Your task to perform on an android device: allow notifications from all sites in the chrome app Image 0: 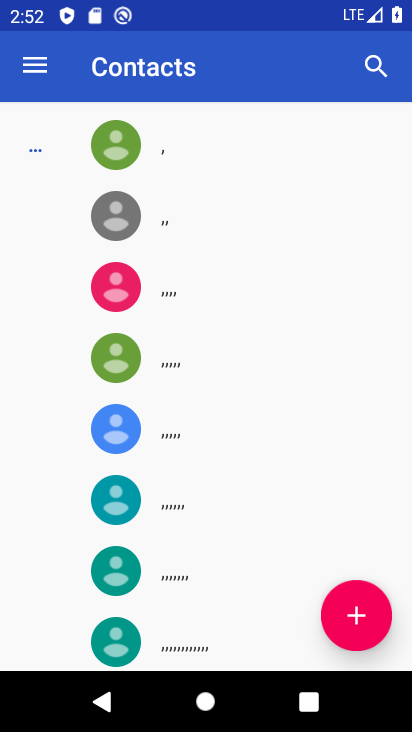
Step 0: press home button
Your task to perform on an android device: allow notifications from all sites in the chrome app Image 1: 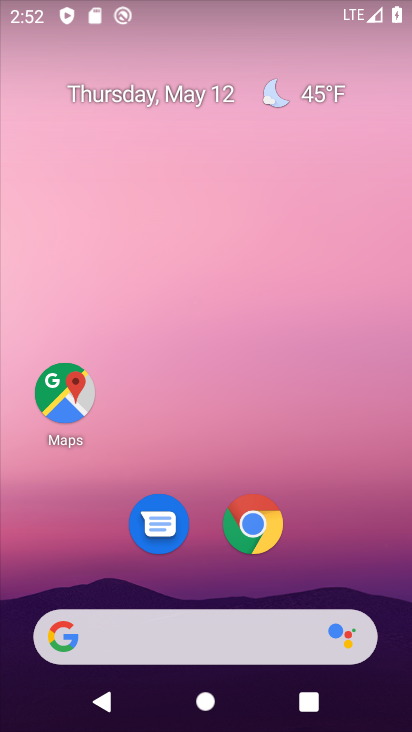
Step 1: click (266, 519)
Your task to perform on an android device: allow notifications from all sites in the chrome app Image 2: 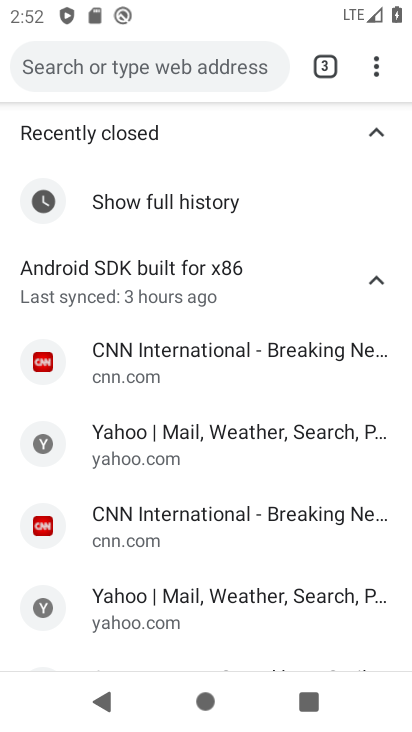
Step 2: click (371, 64)
Your task to perform on an android device: allow notifications from all sites in the chrome app Image 3: 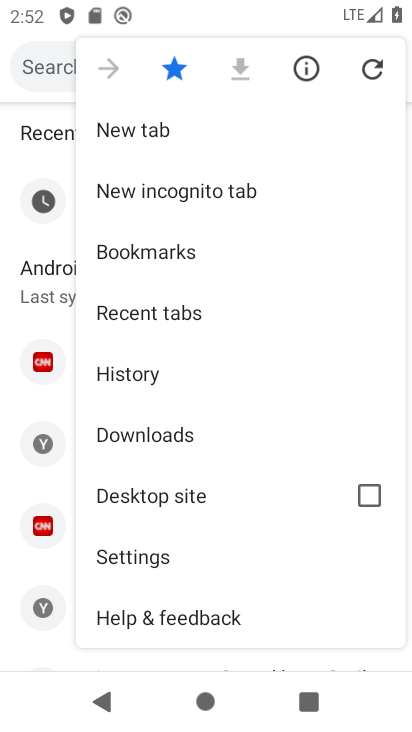
Step 3: click (176, 548)
Your task to perform on an android device: allow notifications from all sites in the chrome app Image 4: 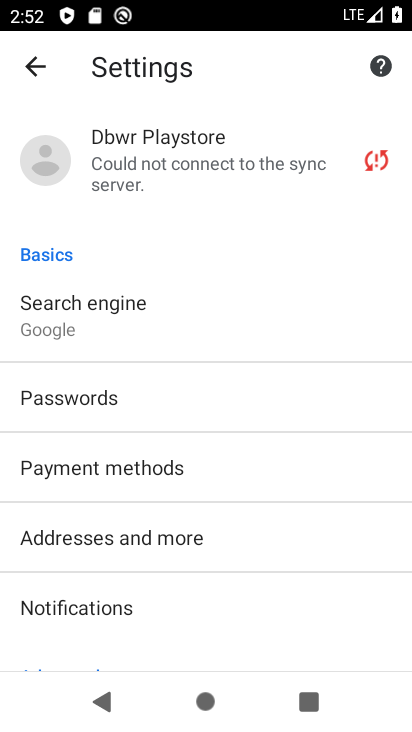
Step 4: click (184, 601)
Your task to perform on an android device: allow notifications from all sites in the chrome app Image 5: 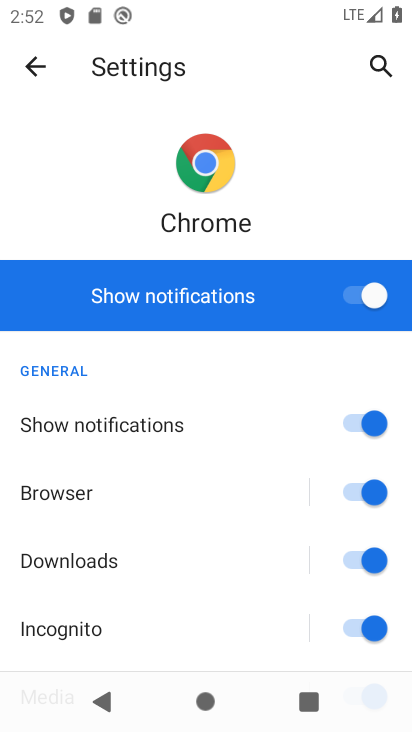
Step 5: task complete